Your task to perform on an android device: Open the Play Movies app and select the watchlist tab. Image 0: 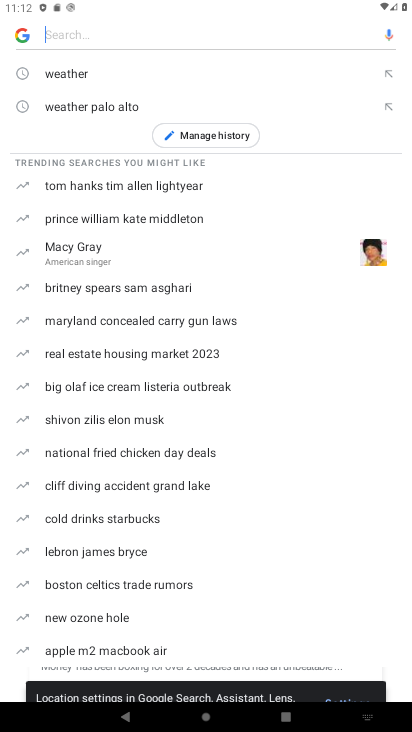
Step 0: press home button
Your task to perform on an android device: Open the Play Movies app and select the watchlist tab. Image 1: 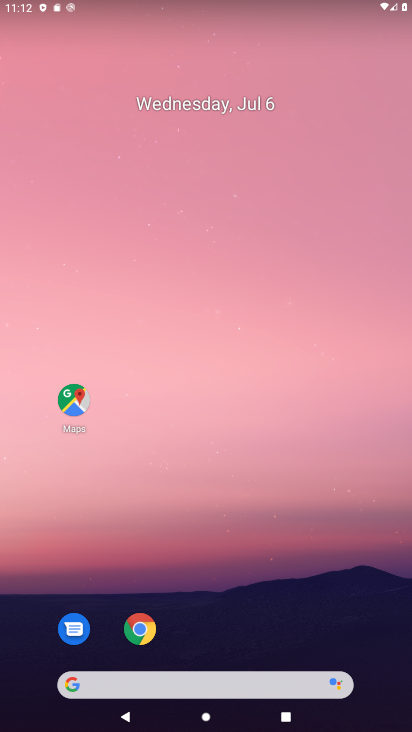
Step 1: drag from (337, 542) to (356, 94)
Your task to perform on an android device: Open the Play Movies app and select the watchlist tab. Image 2: 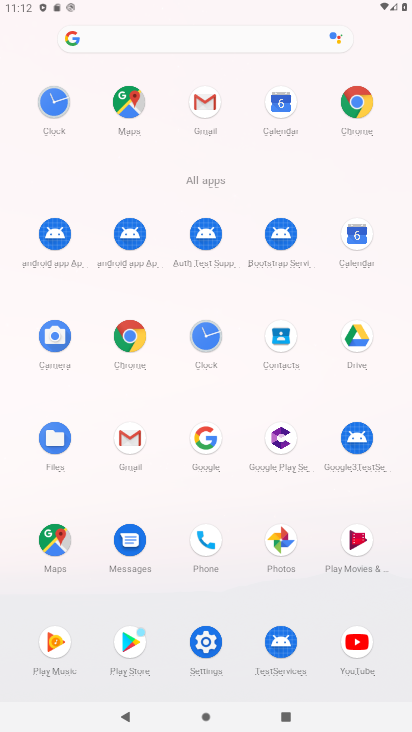
Step 2: click (368, 543)
Your task to perform on an android device: Open the Play Movies app and select the watchlist tab. Image 3: 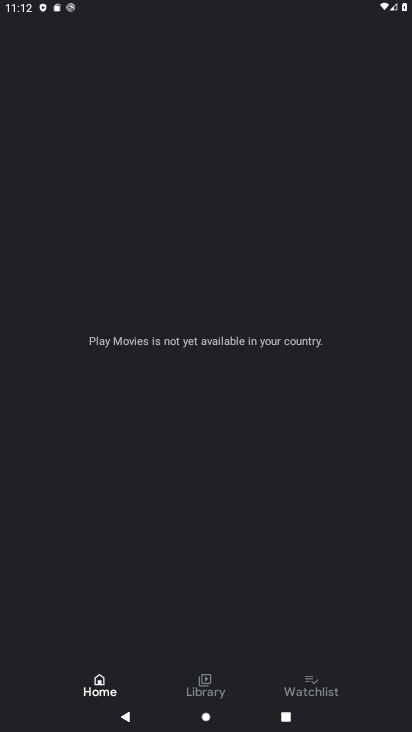
Step 3: click (304, 689)
Your task to perform on an android device: Open the Play Movies app and select the watchlist tab. Image 4: 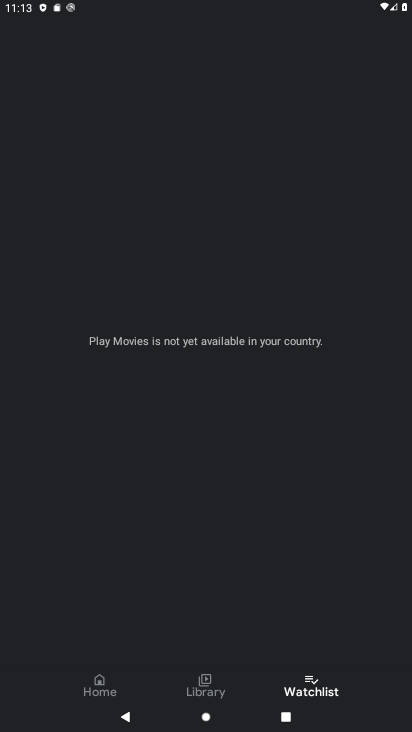
Step 4: task complete